Your task to perform on an android device: Open battery settings Image 0: 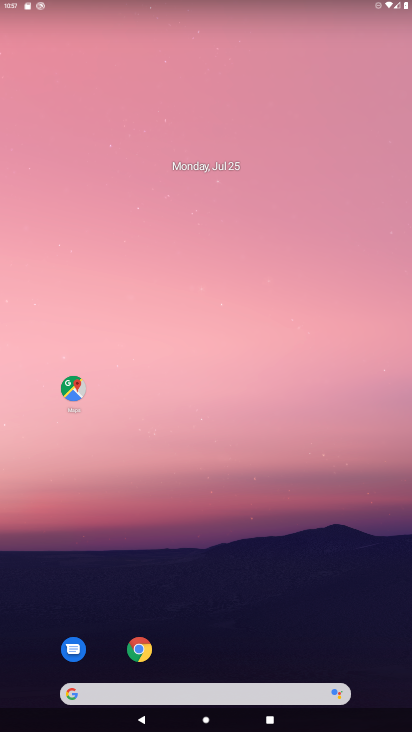
Step 0: drag from (391, 677) to (350, 221)
Your task to perform on an android device: Open battery settings Image 1: 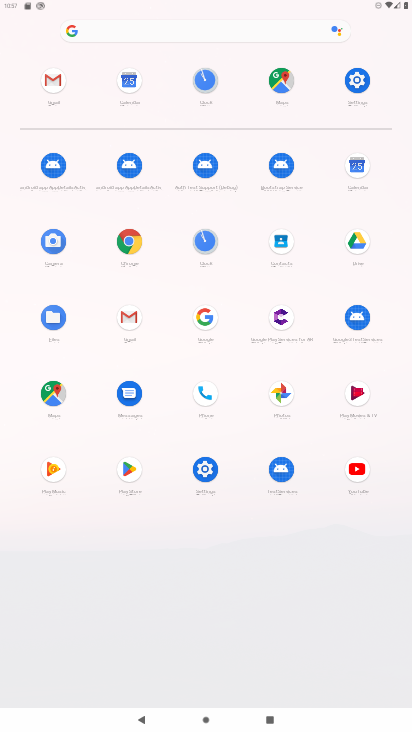
Step 1: click (206, 470)
Your task to perform on an android device: Open battery settings Image 2: 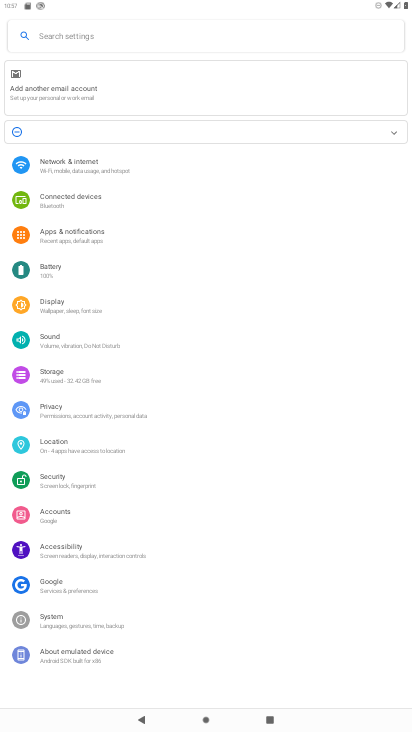
Step 2: click (50, 266)
Your task to perform on an android device: Open battery settings Image 3: 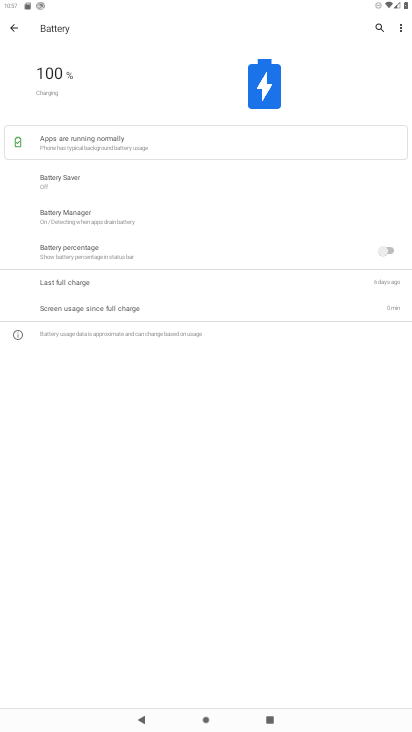
Step 3: task complete